Your task to perform on an android device: set the stopwatch Image 0: 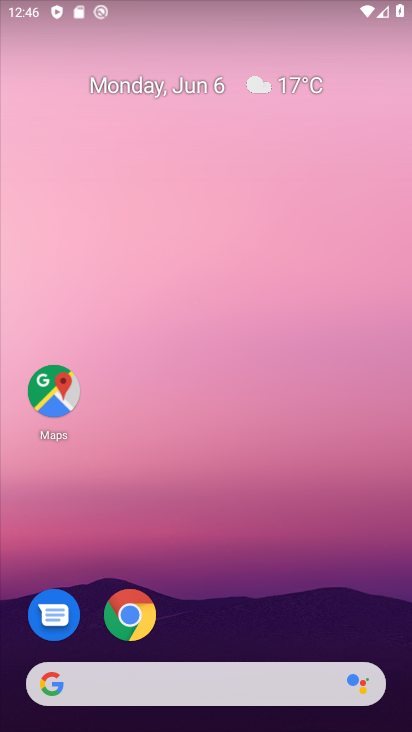
Step 0: click (240, 219)
Your task to perform on an android device: set the stopwatch Image 1: 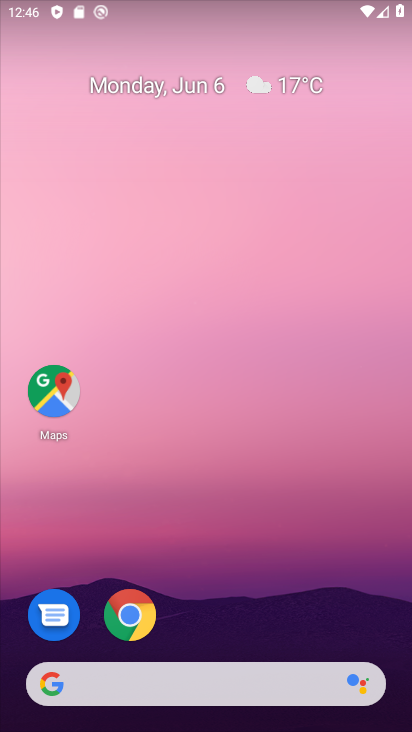
Step 1: drag from (226, 596) to (277, 99)
Your task to perform on an android device: set the stopwatch Image 2: 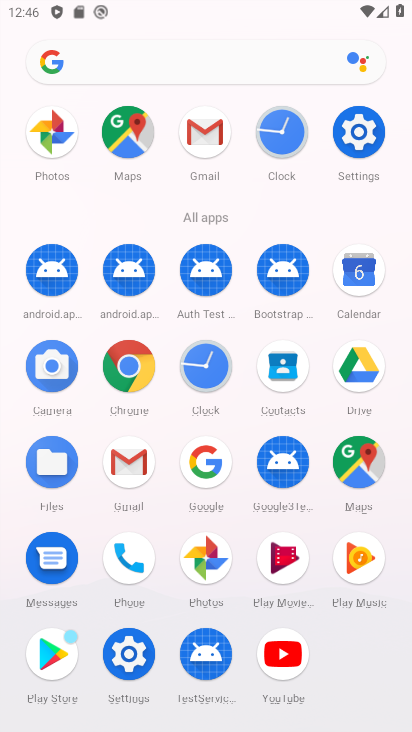
Step 2: drag from (157, 644) to (195, 250)
Your task to perform on an android device: set the stopwatch Image 3: 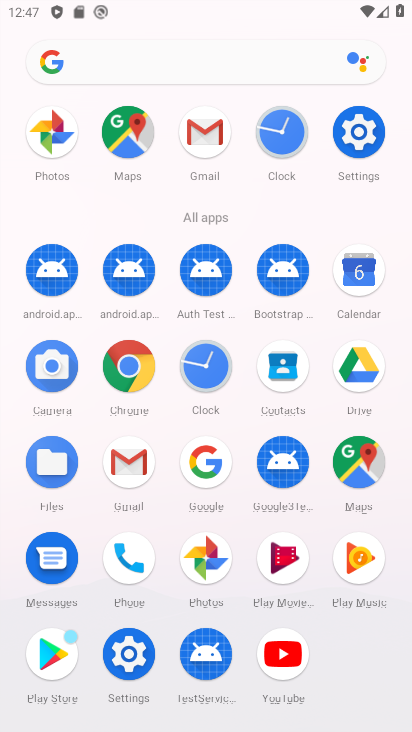
Step 3: drag from (187, 597) to (183, 229)
Your task to perform on an android device: set the stopwatch Image 4: 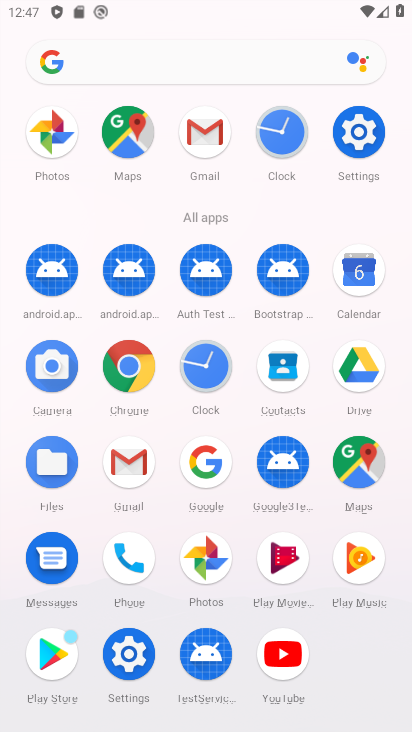
Step 4: click (208, 356)
Your task to perform on an android device: set the stopwatch Image 5: 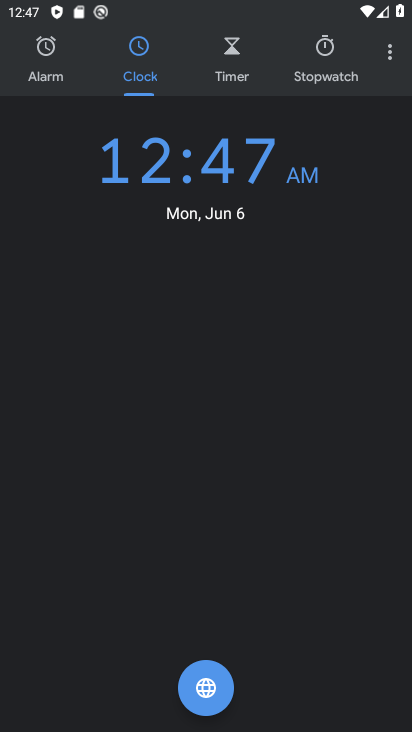
Step 5: click (328, 54)
Your task to perform on an android device: set the stopwatch Image 6: 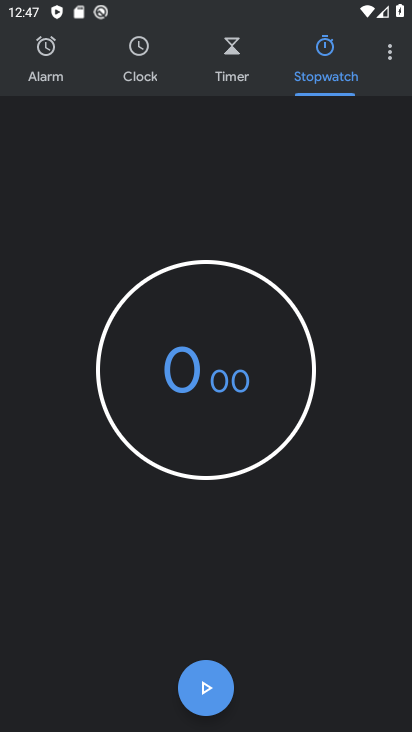
Step 6: drag from (222, 513) to (278, 122)
Your task to perform on an android device: set the stopwatch Image 7: 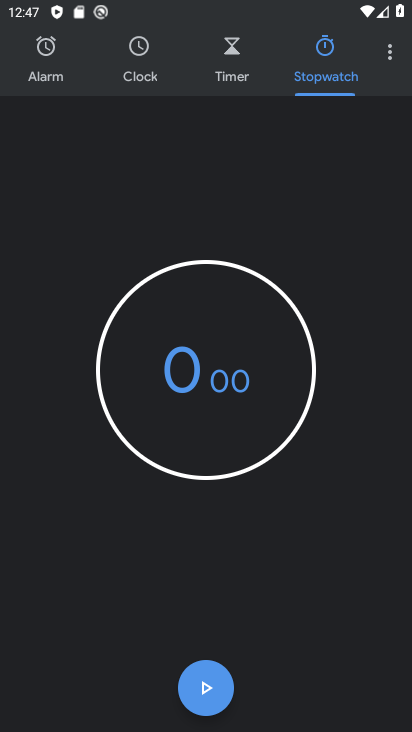
Step 7: click (219, 706)
Your task to perform on an android device: set the stopwatch Image 8: 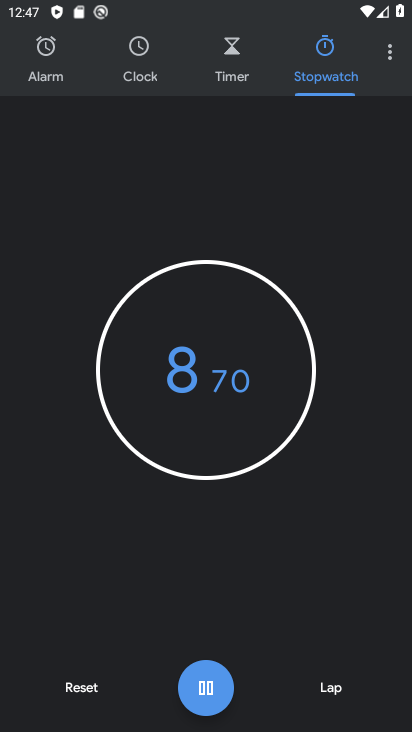
Step 8: task complete